Your task to perform on an android device: Go to accessibility settings Image 0: 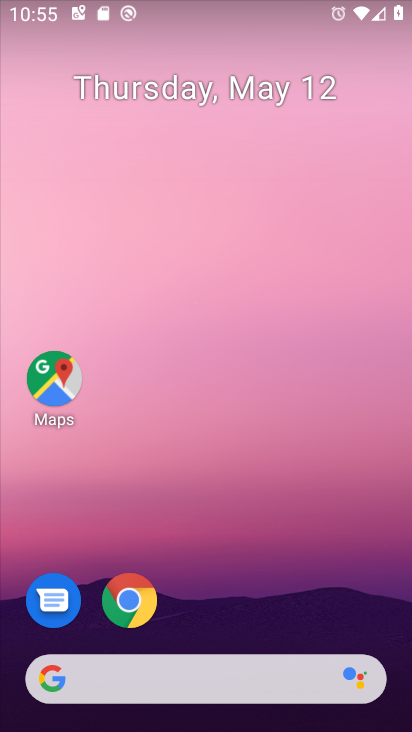
Step 0: drag from (246, 613) to (54, 63)
Your task to perform on an android device: Go to accessibility settings Image 1: 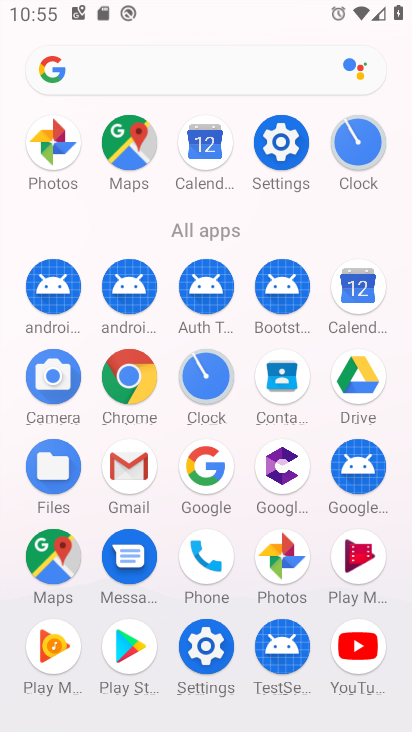
Step 1: click (273, 154)
Your task to perform on an android device: Go to accessibility settings Image 2: 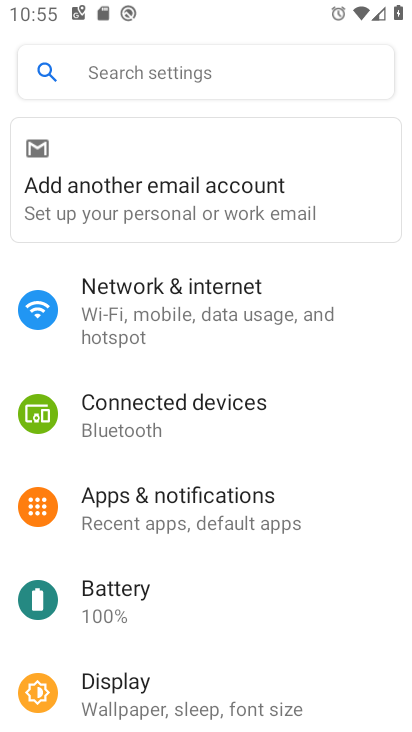
Step 2: drag from (203, 656) to (189, 188)
Your task to perform on an android device: Go to accessibility settings Image 3: 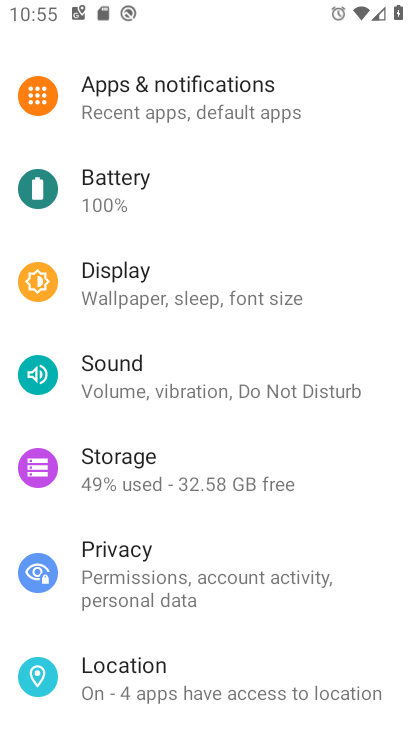
Step 3: drag from (289, 658) to (247, 248)
Your task to perform on an android device: Go to accessibility settings Image 4: 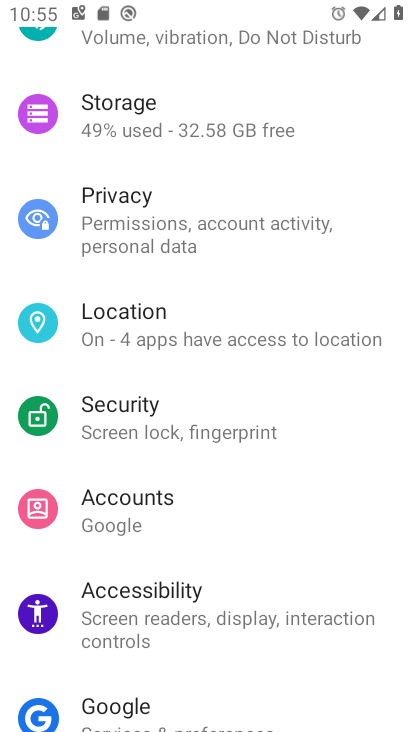
Step 4: click (175, 600)
Your task to perform on an android device: Go to accessibility settings Image 5: 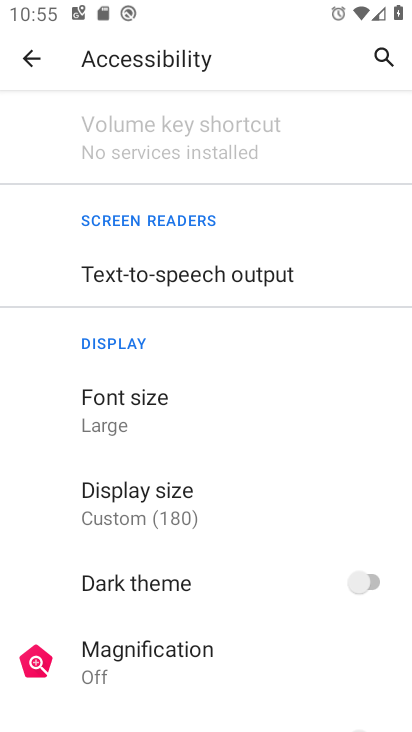
Step 5: task complete